Your task to perform on an android device: open a new tab in the chrome app Image 0: 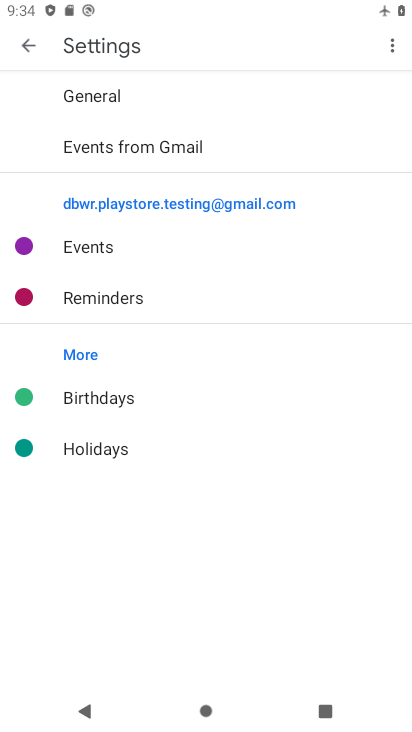
Step 0: press home button
Your task to perform on an android device: open a new tab in the chrome app Image 1: 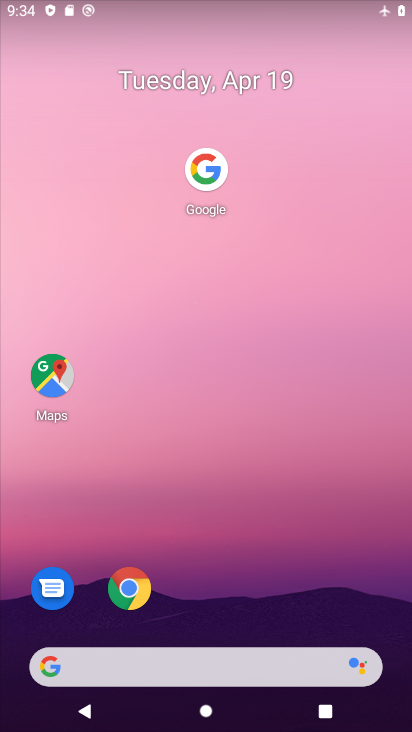
Step 1: click (131, 587)
Your task to perform on an android device: open a new tab in the chrome app Image 2: 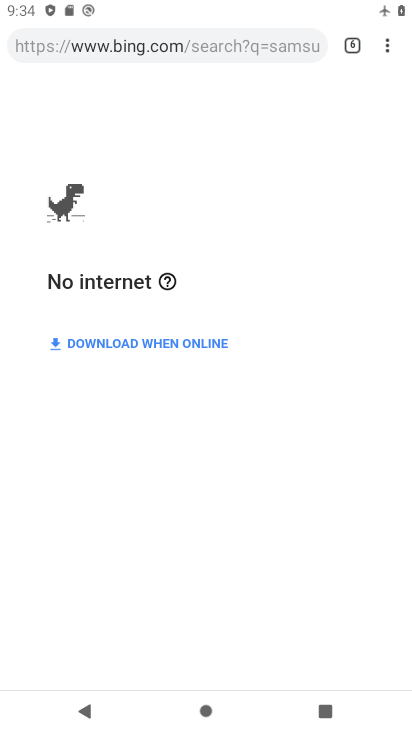
Step 2: click (378, 42)
Your task to perform on an android device: open a new tab in the chrome app Image 3: 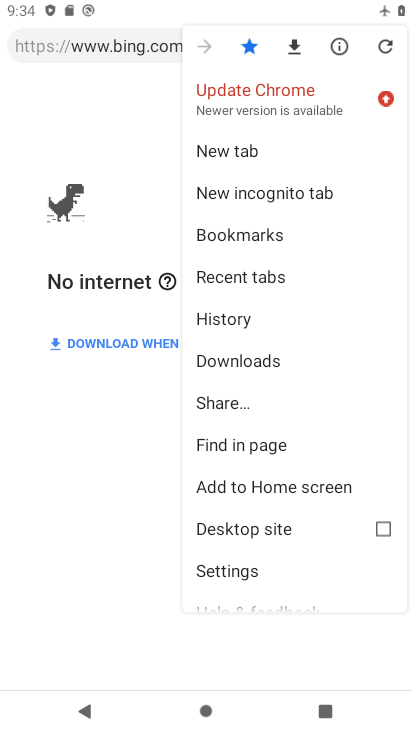
Step 3: click (226, 143)
Your task to perform on an android device: open a new tab in the chrome app Image 4: 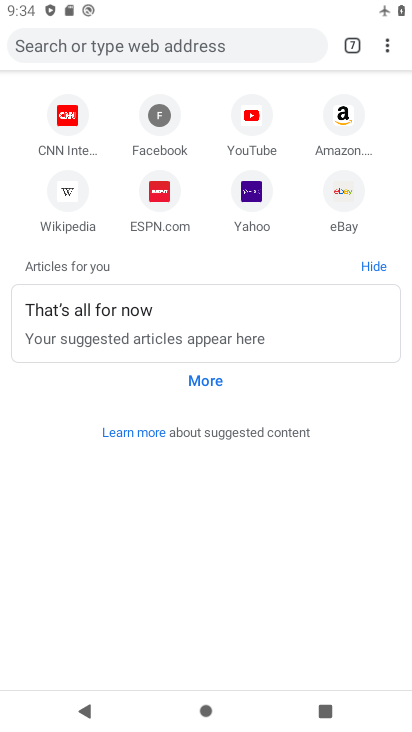
Step 4: task complete